Your task to perform on an android device: Open notification settings Image 0: 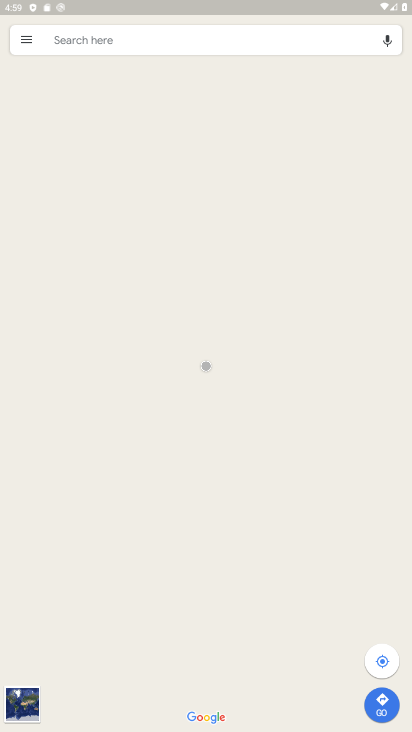
Step 0: press home button
Your task to perform on an android device: Open notification settings Image 1: 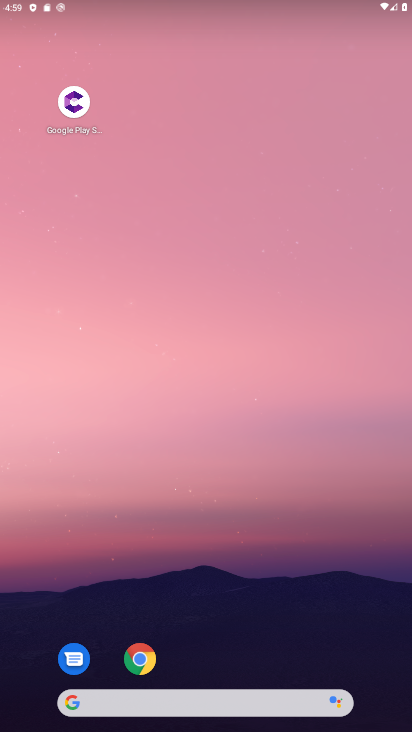
Step 1: drag from (334, 614) to (352, 106)
Your task to perform on an android device: Open notification settings Image 2: 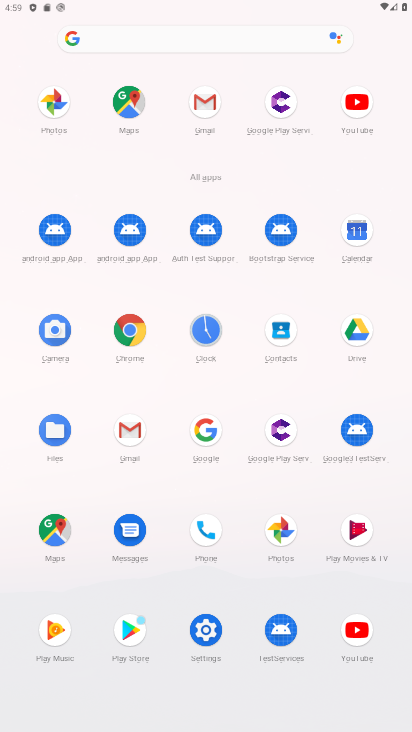
Step 2: click (202, 626)
Your task to perform on an android device: Open notification settings Image 3: 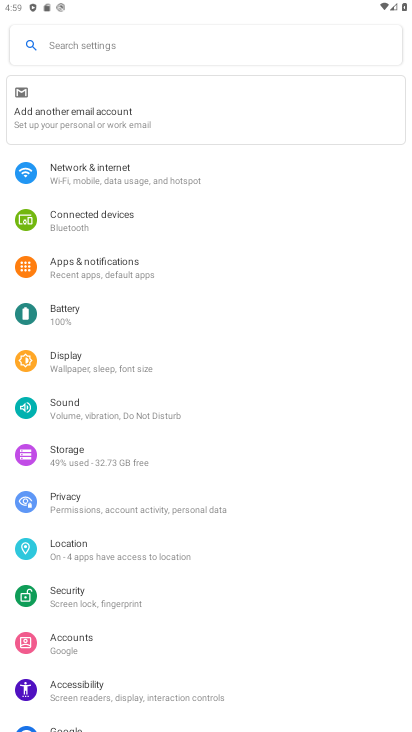
Step 3: click (110, 269)
Your task to perform on an android device: Open notification settings Image 4: 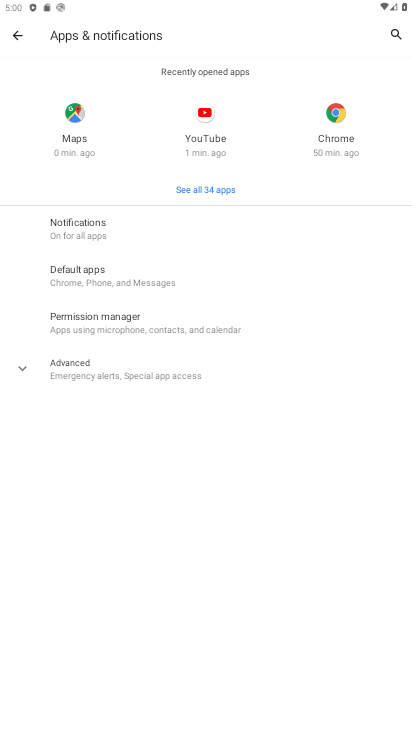
Step 4: click (75, 222)
Your task to perform on an android device: Open notification settings Image 5: 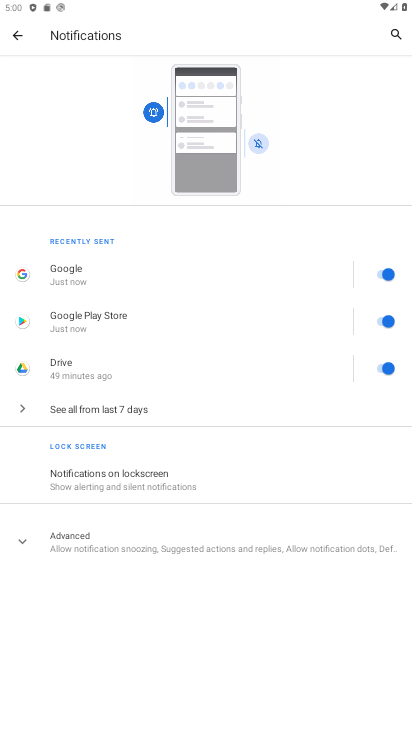
Step 5: click (23, 546)
Your task to perform on an android device: Open notification settings Image 6: 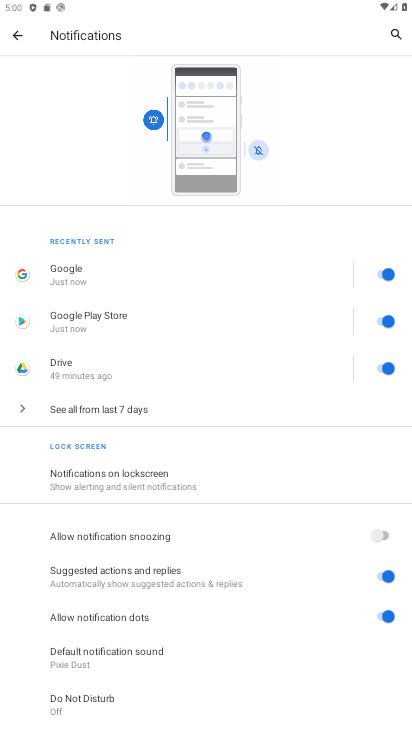
Step 6: task complete